Your task to perform on an android device: make emails show in primary in the gmail app Image 0: 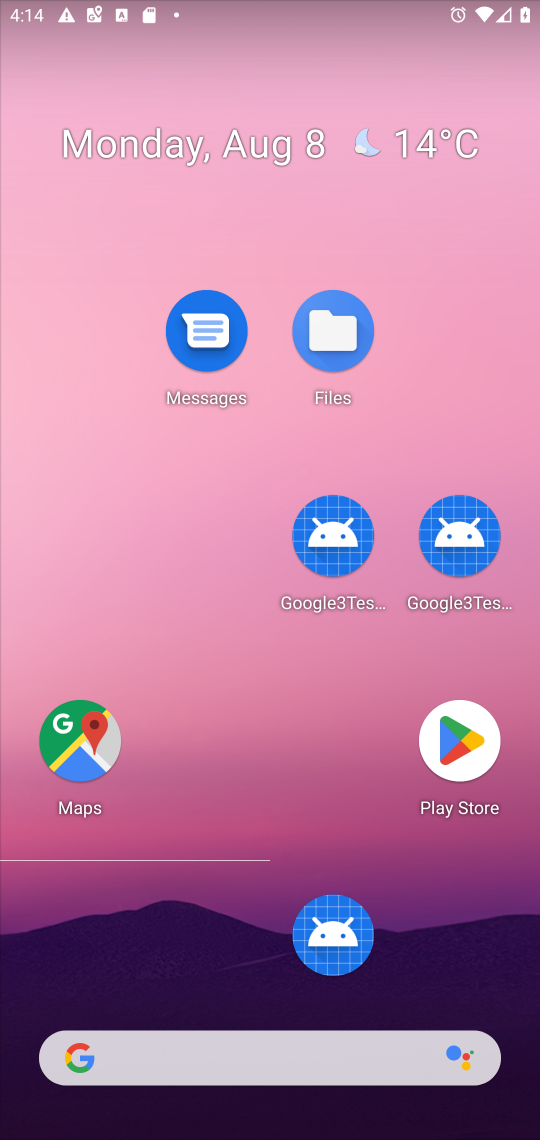
Step 0: drag from (356, 1046) to (413, 69)
Your task to perform on an android device: make emails show in primary in the gmail app Image 1: 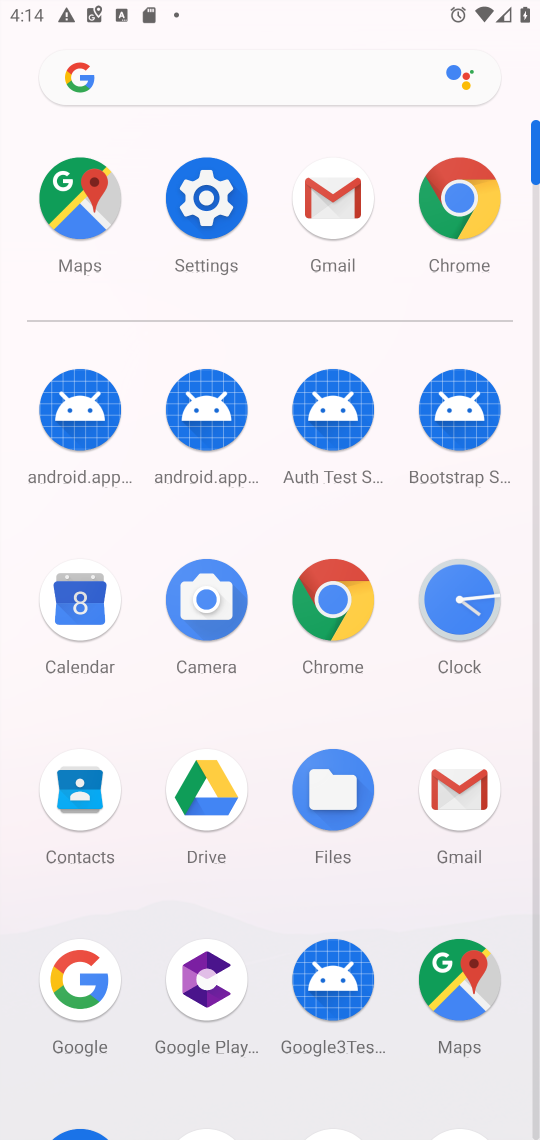
Step 1: click (444, 799)
Your task to perform on an android device: make emails show in primary in the gmail app Image 2: 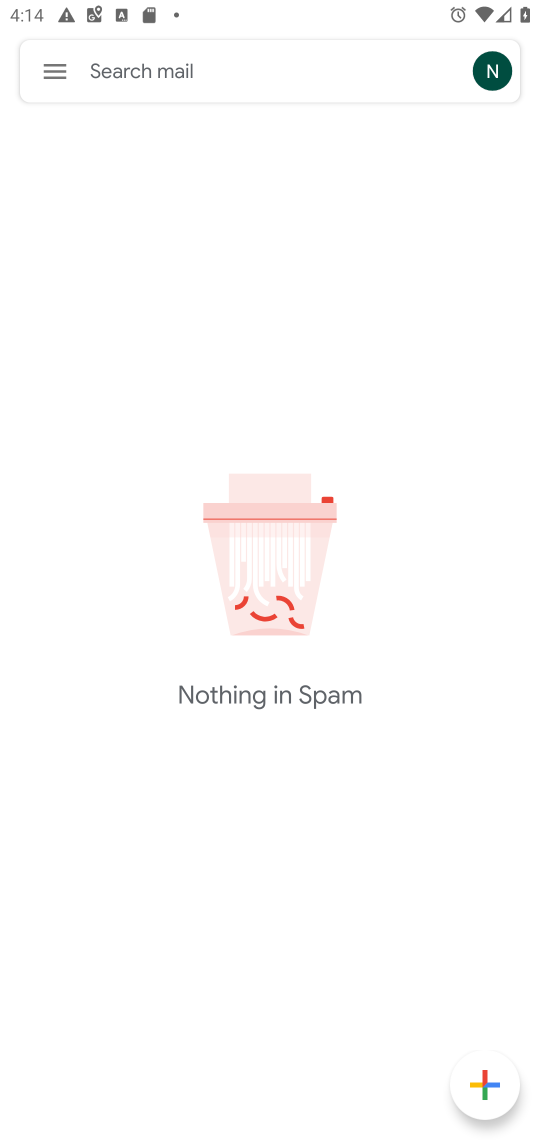
Step 2: click (52, 55)
Your task to perform on an android device: make emails show in primary in the gmail app Image 3: 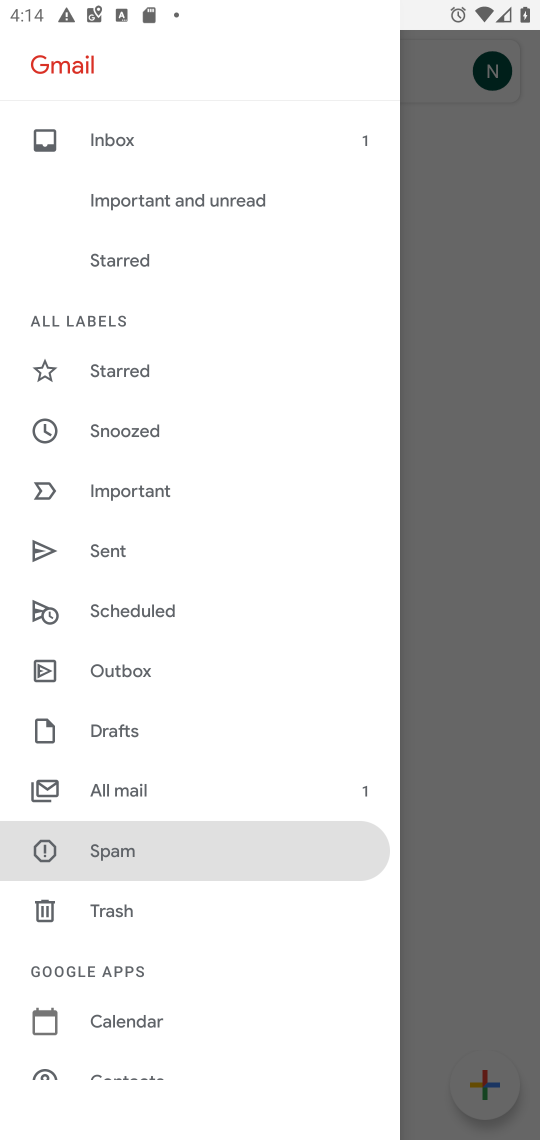
Step 3: drag from (278, 1086) to (279, 291)
Your task to perform on an android device: make emails show in primary in the gmail app Image 4: 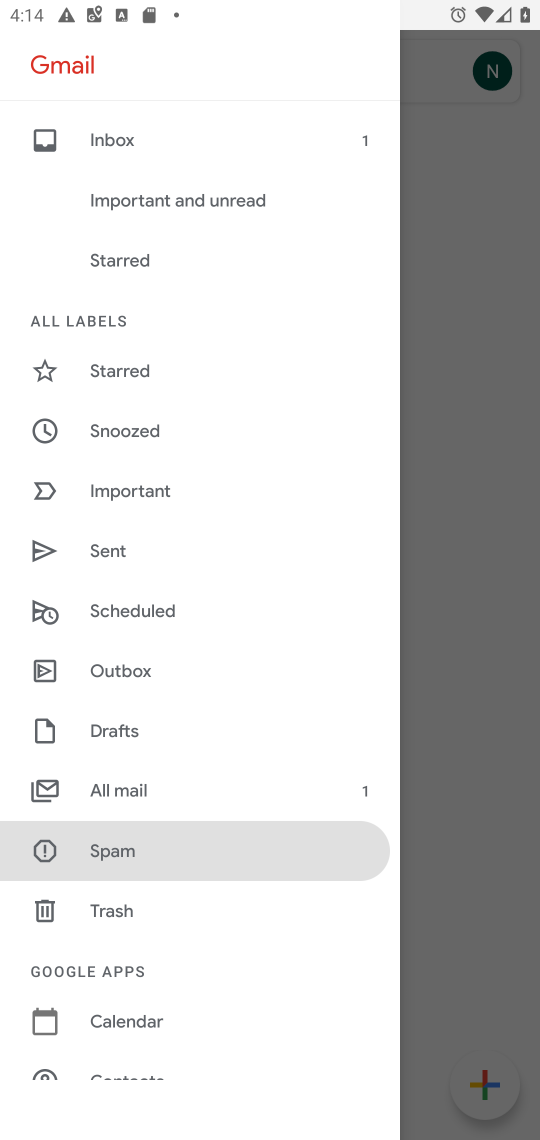
Step 4: drag from (286, 1000) to (292, 108)
Your task to perform on an android device: make emails show in primary in the gmail app Image 5: 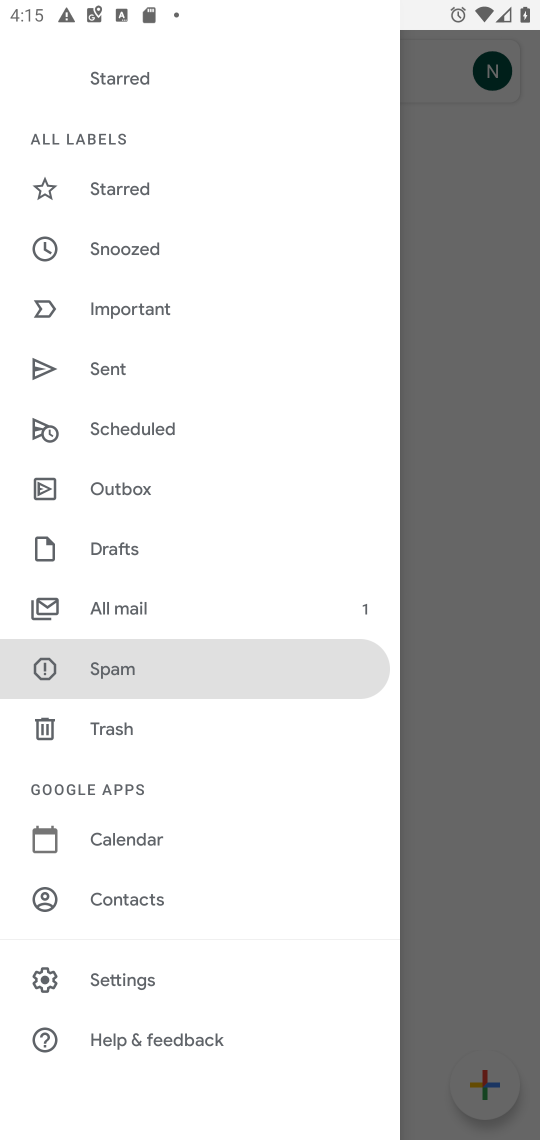
Step 5: click (119, 977)
Your task to perform on an android device: make emails show in primary in the gmail app Image 6: 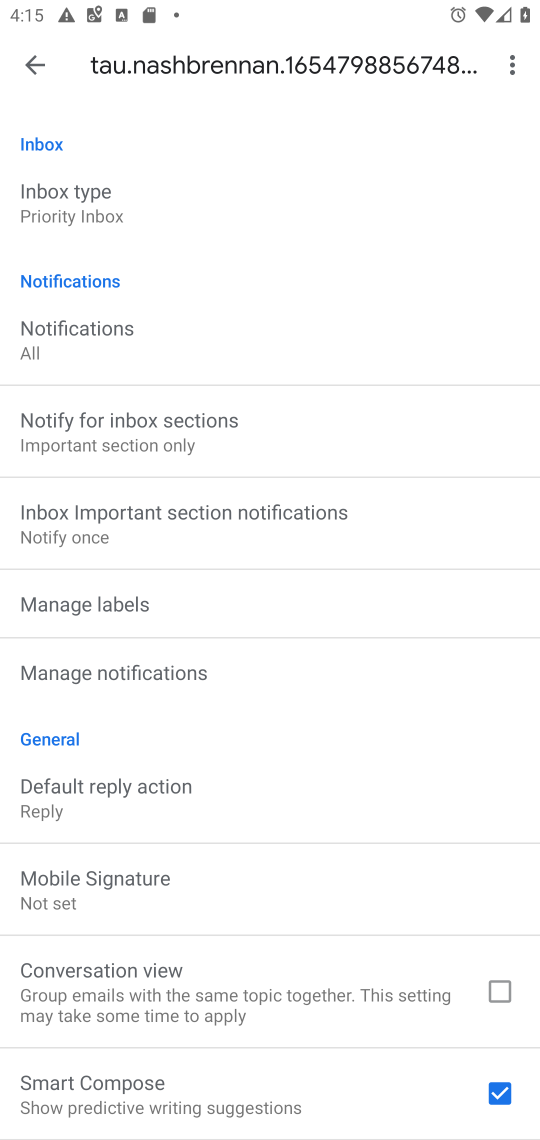
Step 6: click (52, 188)
Your task to perform on an android device: make emails show in primary in the gmail app Image 7: 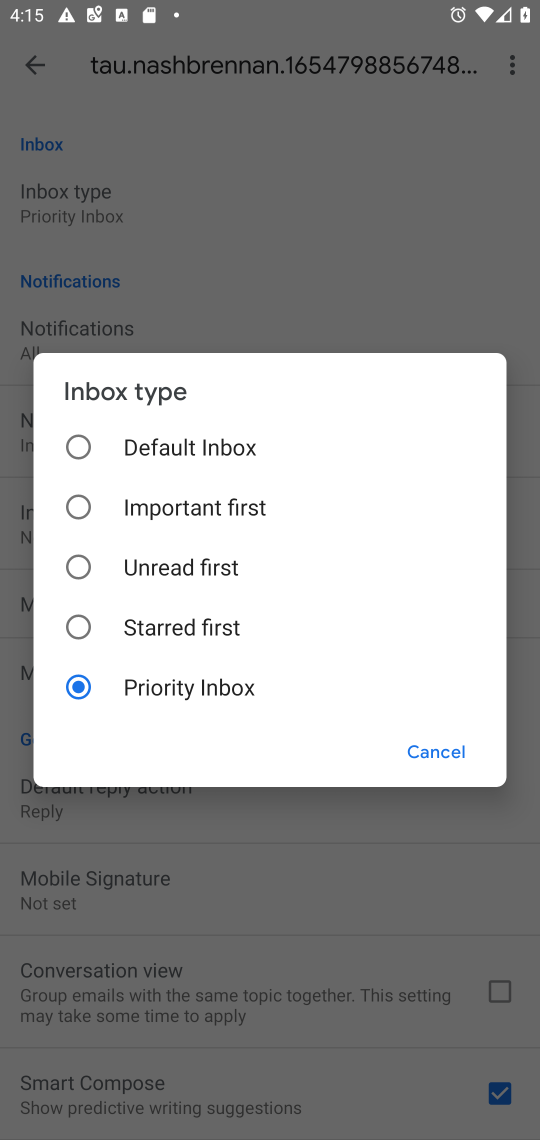
Step 7: click (172, 441)
Your task to perform on an android device: make emails show in primary in the gmail app Image 8: 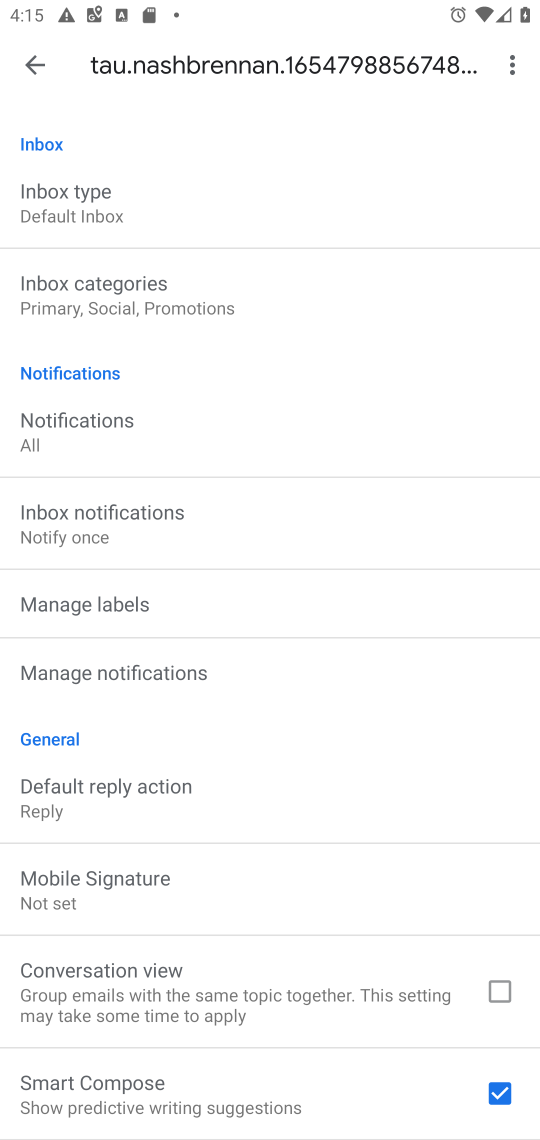
Step 8: press back button
Your task to perform on an android device: make emails show in primary in the gmail app Image 9: 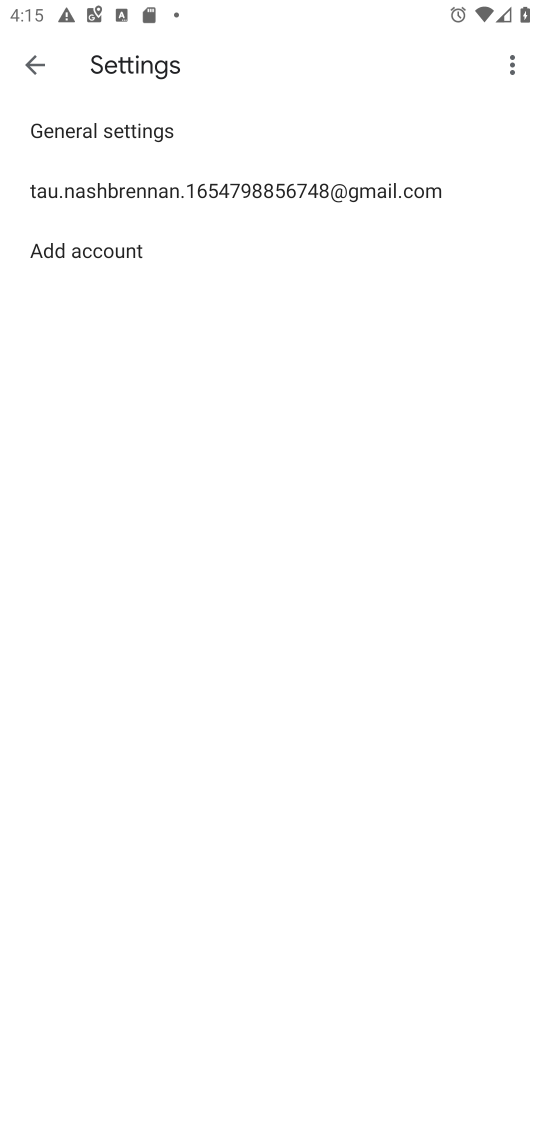
Step 9: press back button
Your task to perform on an android device: make emails show in primary in the gmail app Image 10: 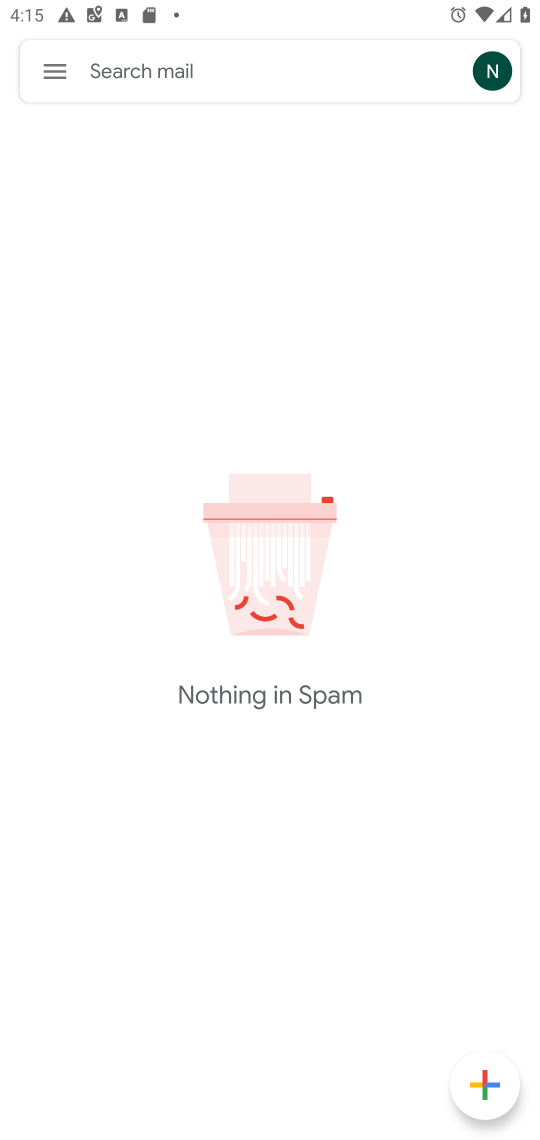
Step 10: click (49, 67)
Your task to perform on an android device: make emails show in primary in the gmail app Image 11: 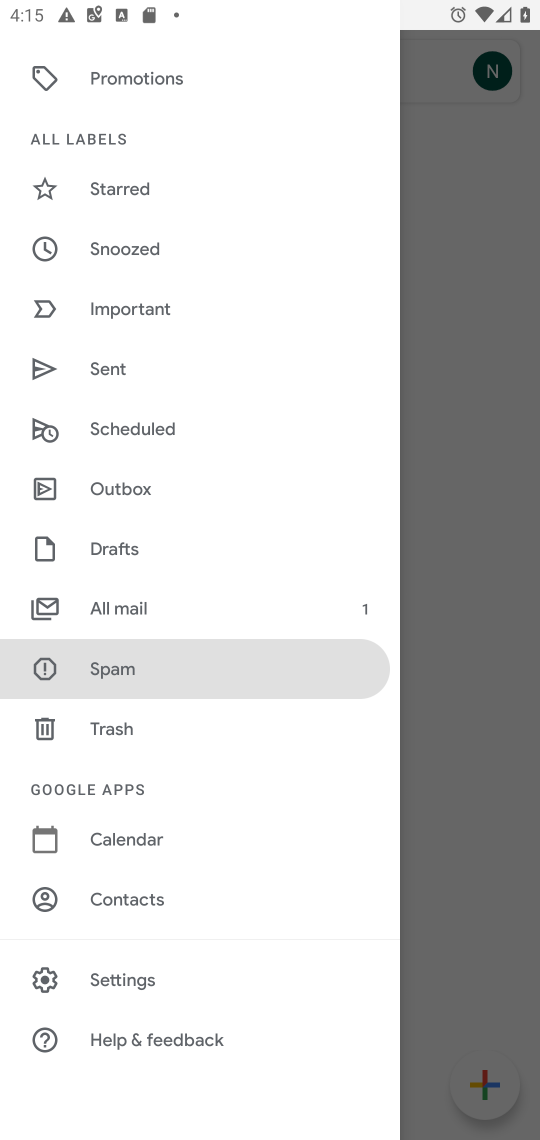
Step 11: drag from (241, 273) to (241, 781)
Your task to perform on an android device: make emails show in primary in the gmail app Image 12: 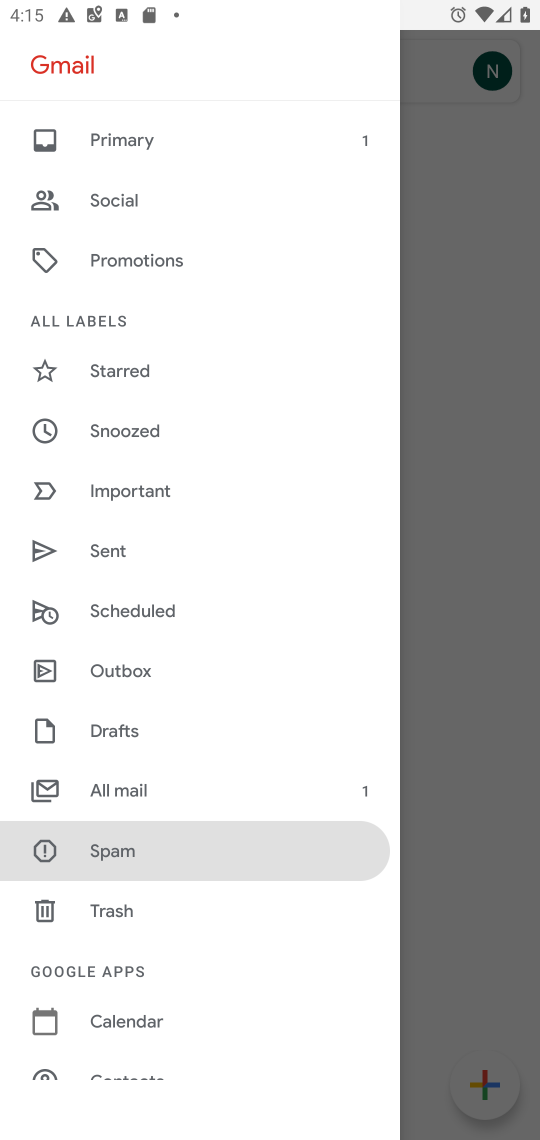
Step 12: click (120, 141)
Your task to perform on an android device: make emails show in primary in the gmail app Image 13: 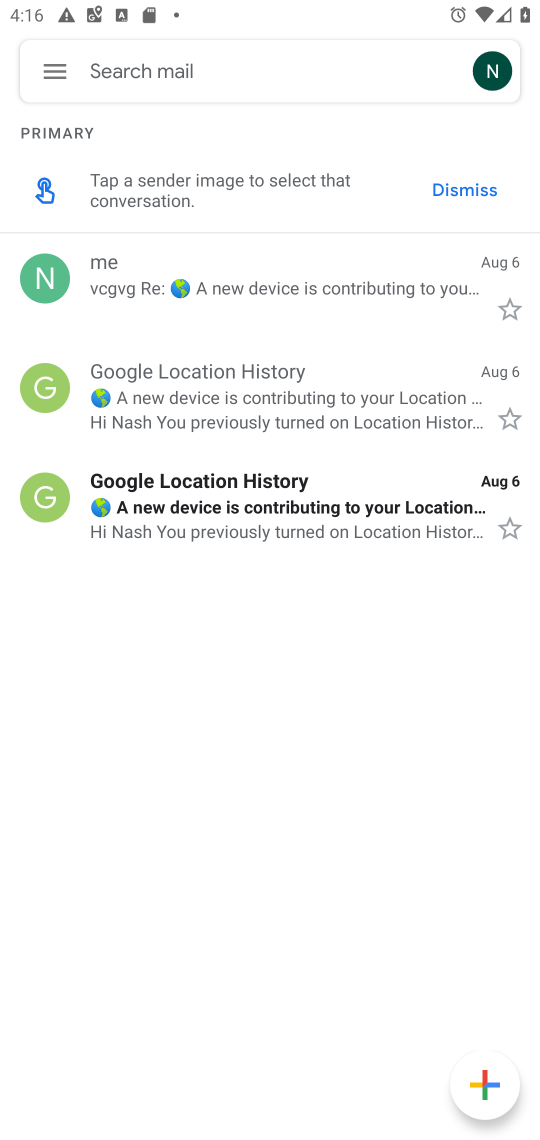
Step 13: task complete